Your task to perform on an android device: check the backup settings in the google photos Image 0: 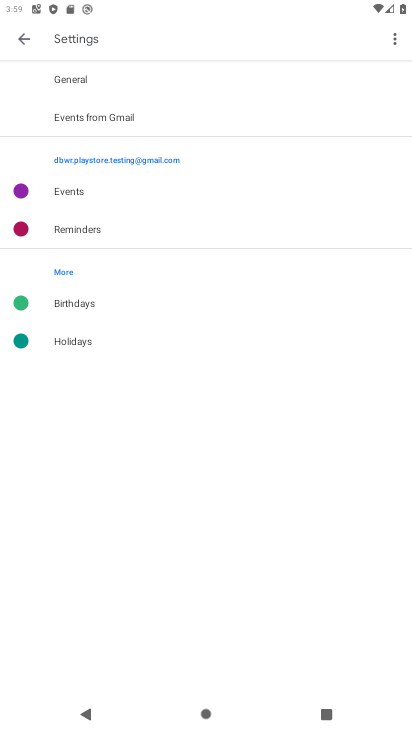
Step 0: press home button
Your task to perform on an android device: check the backup settings in the google photos Image 1: 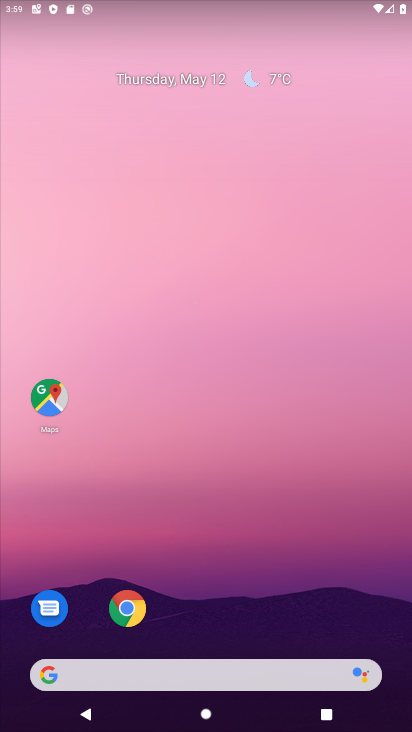
Step 1: drag from (213, 622) to (289, 6)
Your task to perform on an android device: check the backup settings in the google photos Image 2: 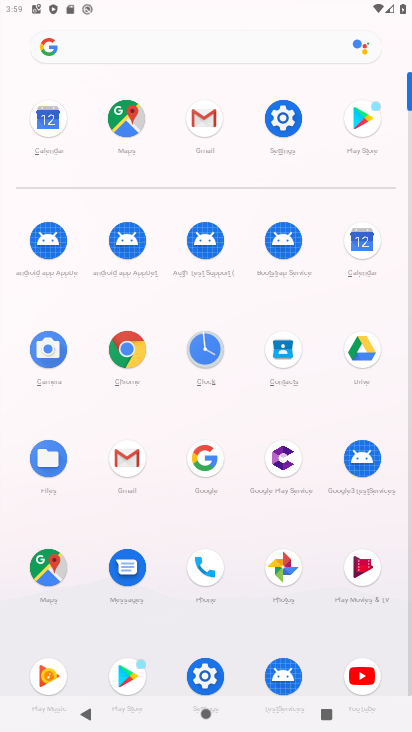
Step 2: click (275, 558)
Your task to perform on an android device: check the backup settings in the google photos Image 3: 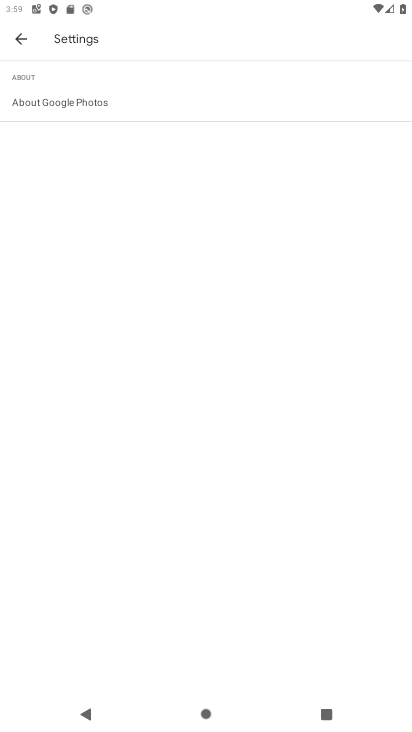
Step 3: click (16, 41)
Your task to perform on an android device: check the backup settings in the google photos Image 4: 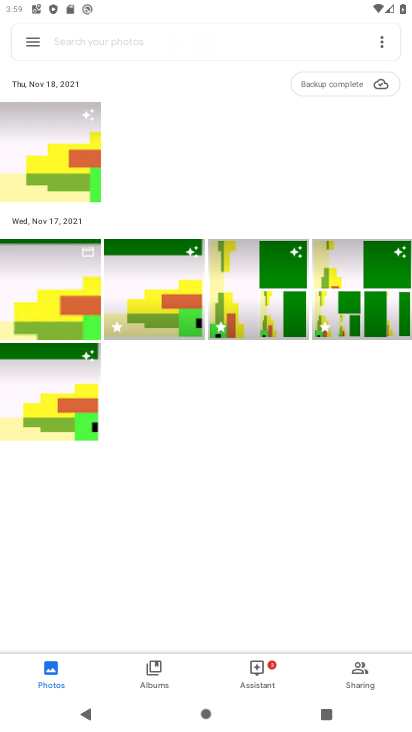
Step 4: click (42, 25)
Your task to perform on an android device: check the backup settings in the google photos Image 5: 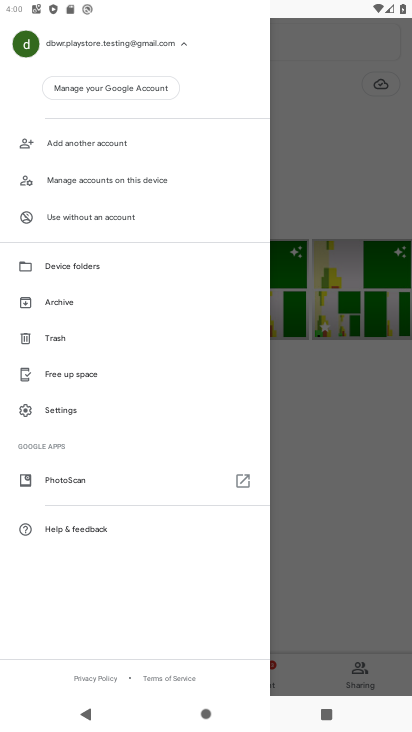
Step 5: click (92, 414)
Your task to perform on an android device: check the backup settings in the google photos Image 6: 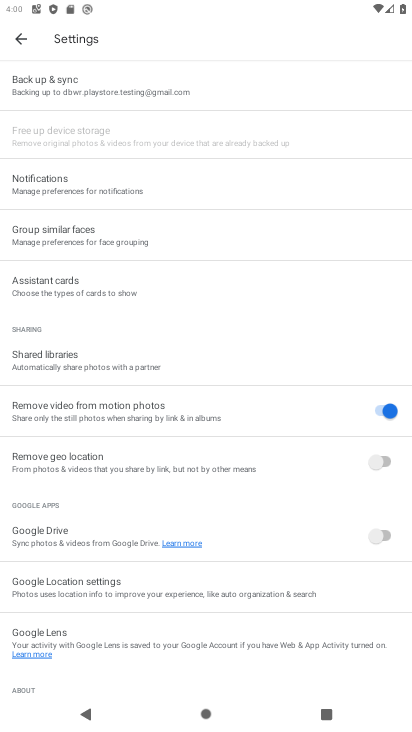
Step 6: task complete